Your task to perform on an android device: change notification settings in the gmail app Image 0: 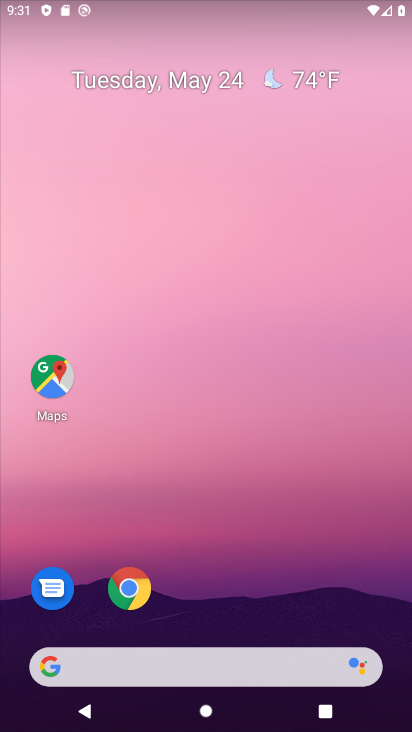
Step 0: drag from (187, 618) to (224, 214)
Your task to perform on an android device: change notification settings in the gmail app Image 1: 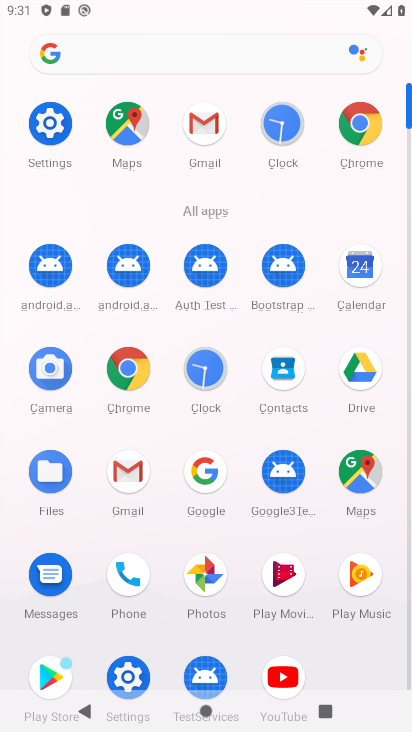
Step 1: click (218, 134)
Your task to perform on an android device: change notification settings in the gmail app Image 2: 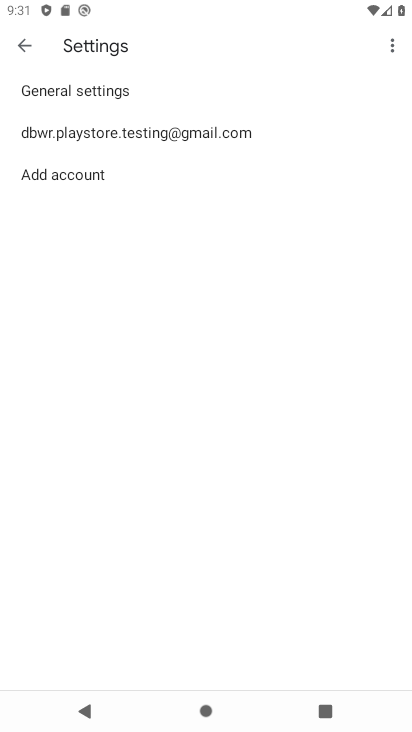
Step 2: click (101, 134)
Your task to perform on an android device: change notification settings in the gmail app Image 3: 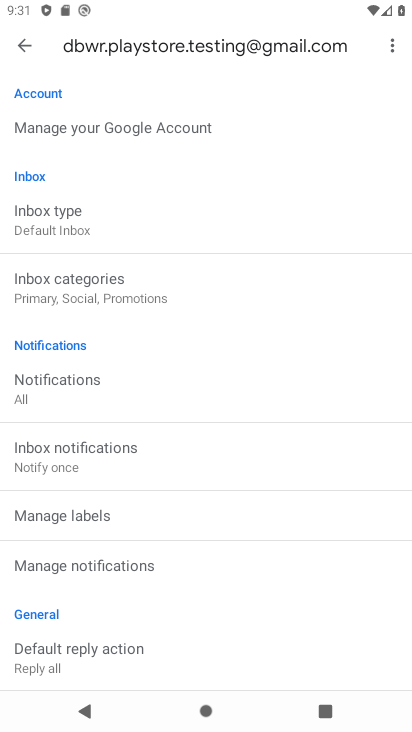
Step 3: click (56, 392)
Your task to perform on an android device: change notification settings in the gmail app Image 4: 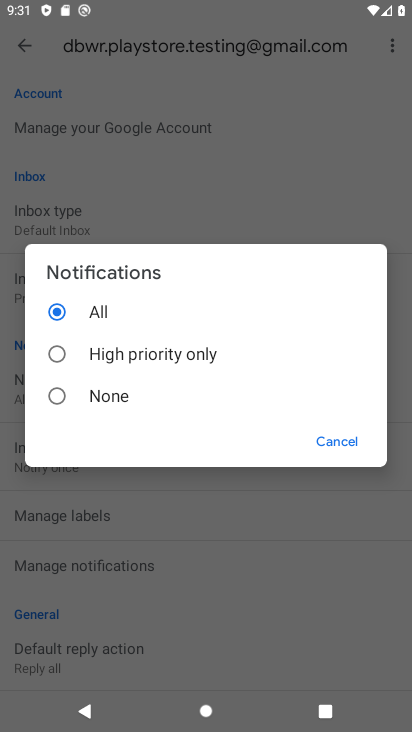
Step 4: click (71, 332)
Your task to perform on an android device: change notification settings in the gmail app Image 5: 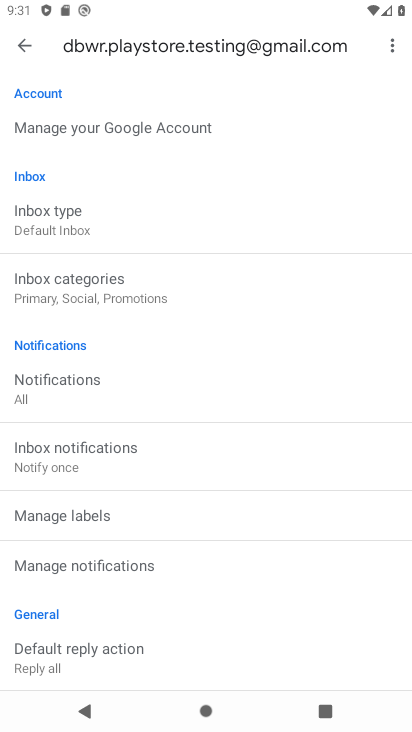
Step 5: click (64, 384)
Your task to perform on an android device: change notification settings in the gmail app Image 6: 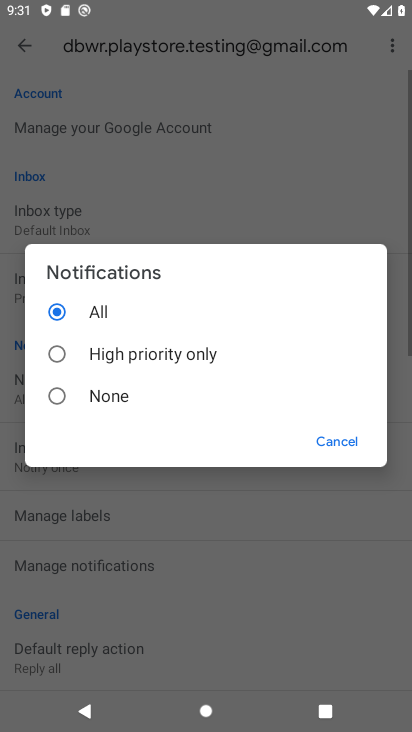
Step 6: click (219, 364)
Your task to perform on an android device: change notification settings in the gmail app Image 7: 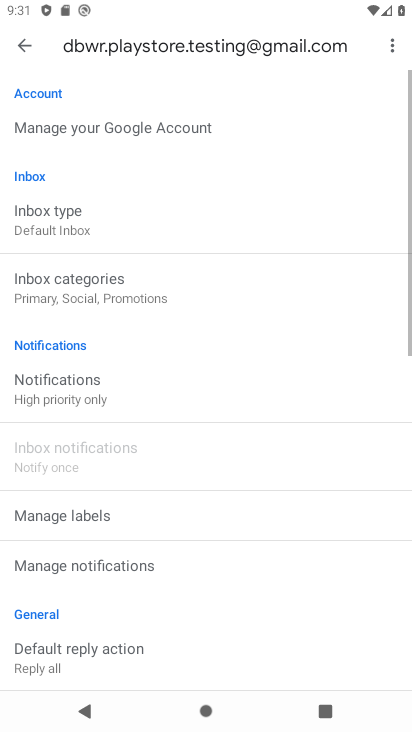
Step 7: task complete